Your task to perform on an android device: Open calendar and show me the first week of next month Image 0: 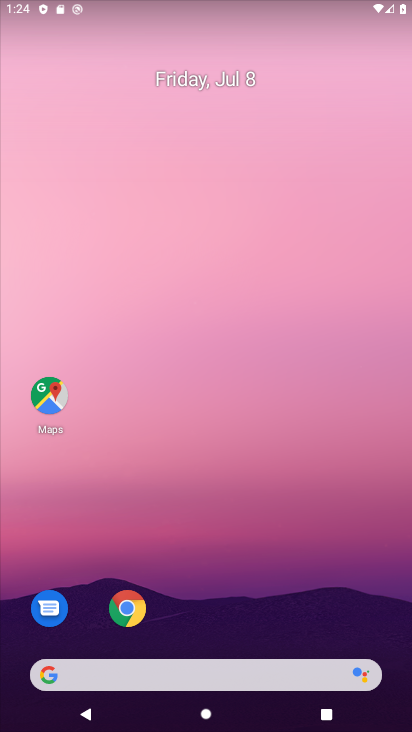
Step 0: click (227, 84)
Your task to perform on an android device: Open calendar and show me the first week of next month Image 1: 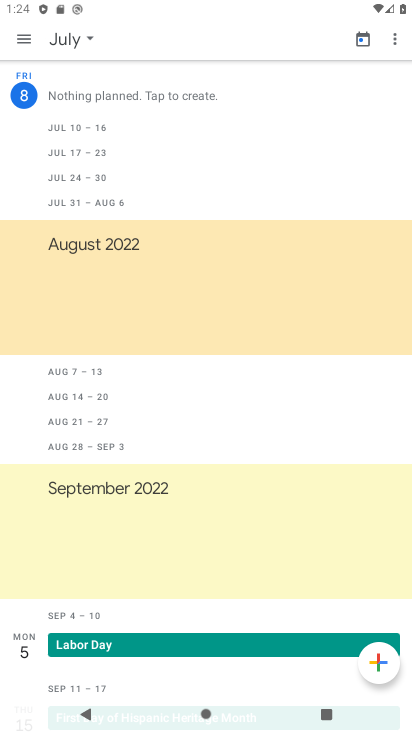
Step 1: click (72, 44)
Your task to perform on an android device: Open calendar and show me the first week of next month Image 2: 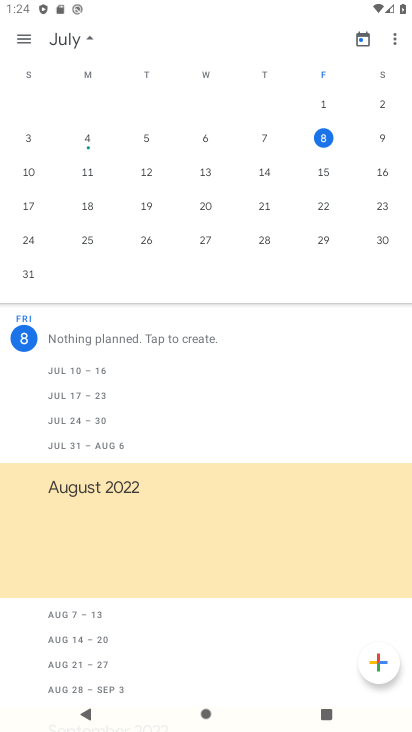
Step 2: drag from (366, 253) to (55, 277)
Your task to perform on an android device: Open calendar and show me the first week of next month Image 3: 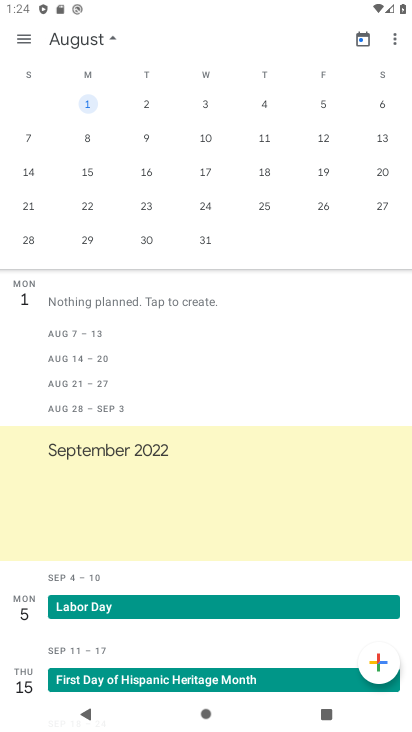
Step 3: click (208, 108)
Your task to perform on an android device: Open calendar and show me the first week of next month Image 4: 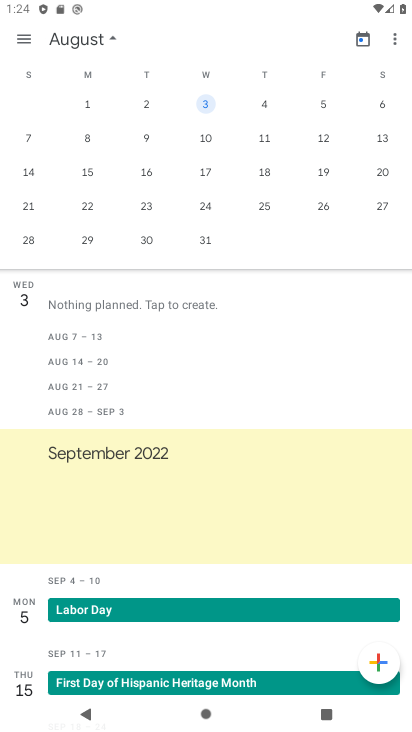
Step 4: task complete